Your task to perform on an android device: check android version Image 0: 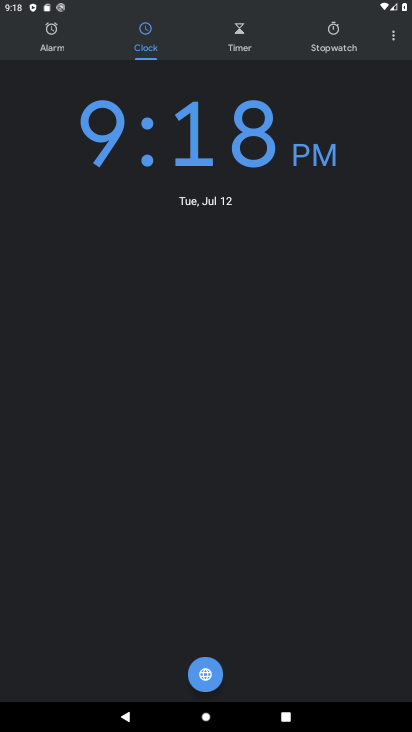
Step 0: press home button
Your task to perform on an android device: check android version Image 1: 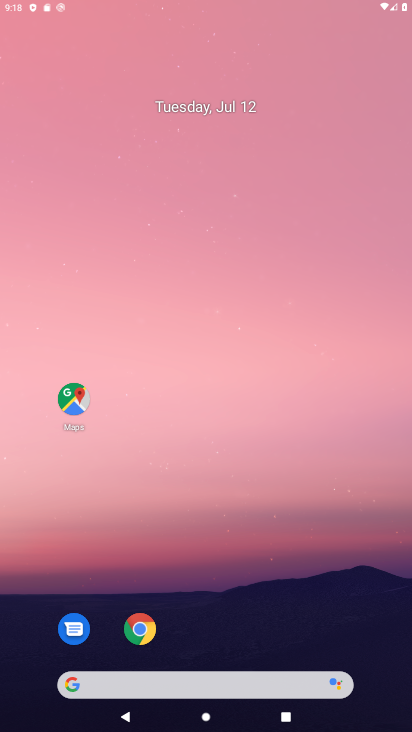
Step 1: drag from (281, 682) to (280, 116)
Your task to perform on an android device: check android version Image 2: 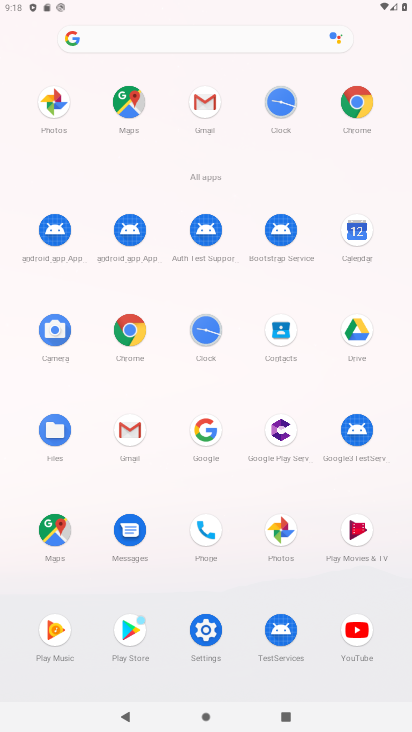
Step 2: click (209, 432)
Your task to perform on an android device: check android version Image 3: 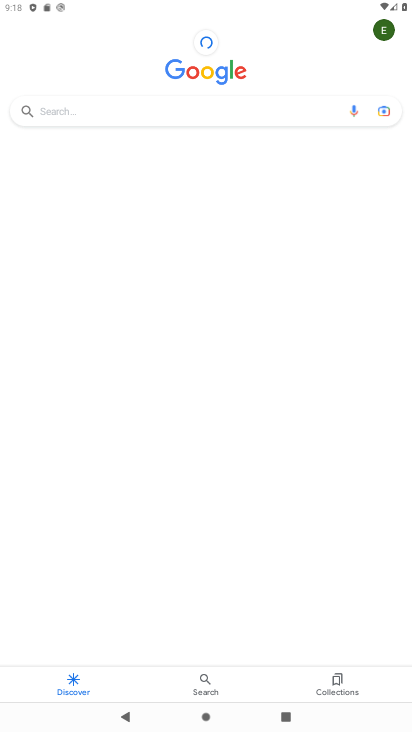
Step 3: click (385, 24)
Your task to perform on an android device: check android version Image 4: 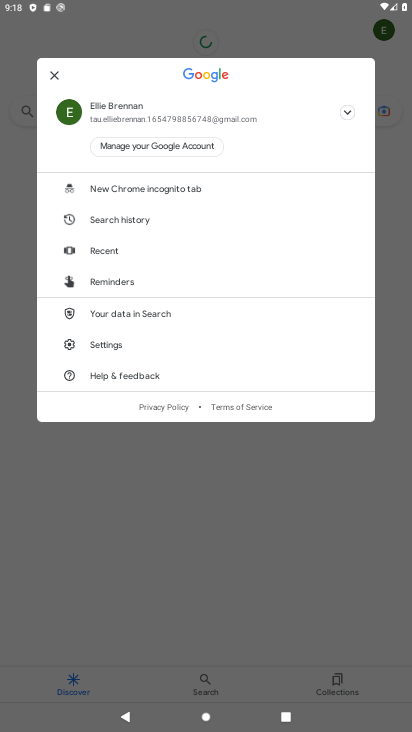
Step 4: click (158, 376)
Your task to perform on an android device: check android version Image 5: 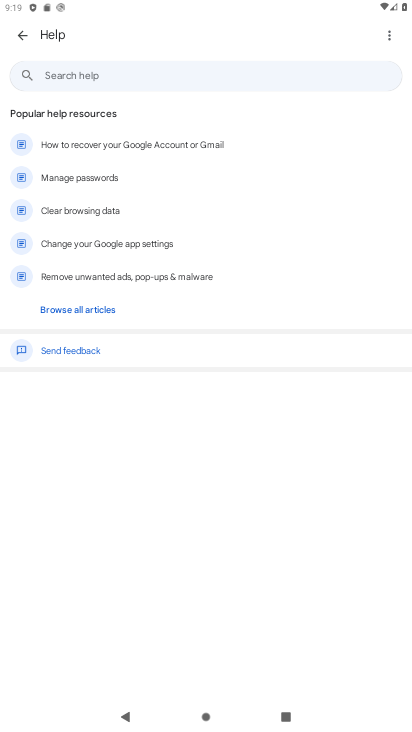
Step 5: click (383, 33)
Your task to perform on an android device: check android version Image 6: 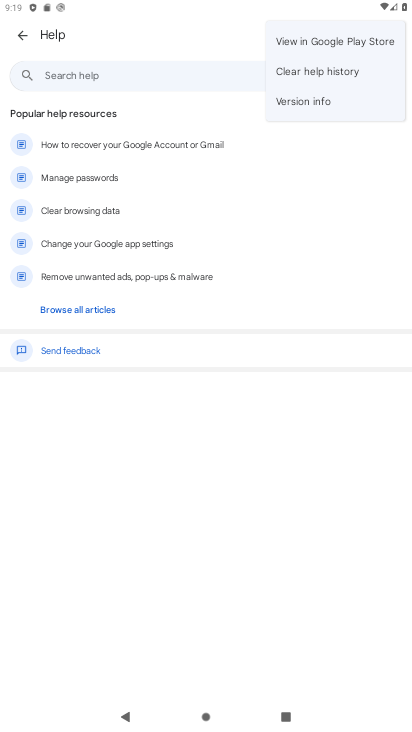
Step 6: click (331, 100)
Your task to perform on an android device: check android version Image 7: 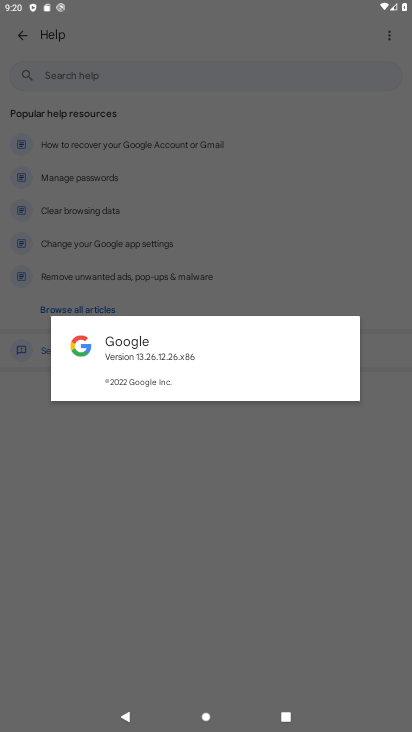
Step 7: task complete